Your task to perform on an android device: turn on airplane mode Image 0: 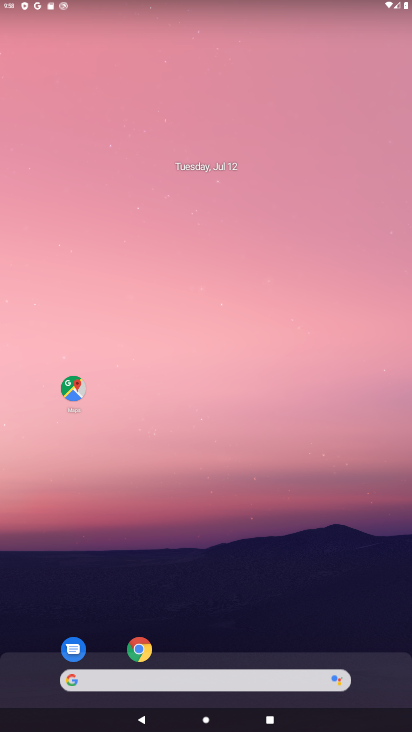
Step 0: drag from (273, 594) to (212, 69)
Your task to perform on an android device: turn on airplane mode Image 1: 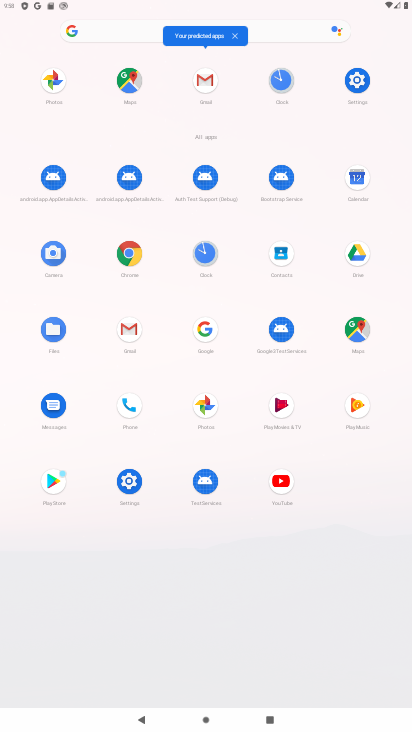
Step 1: click (352, 83)
Your task to perform on an android device: turn on airplane mode Image 2: 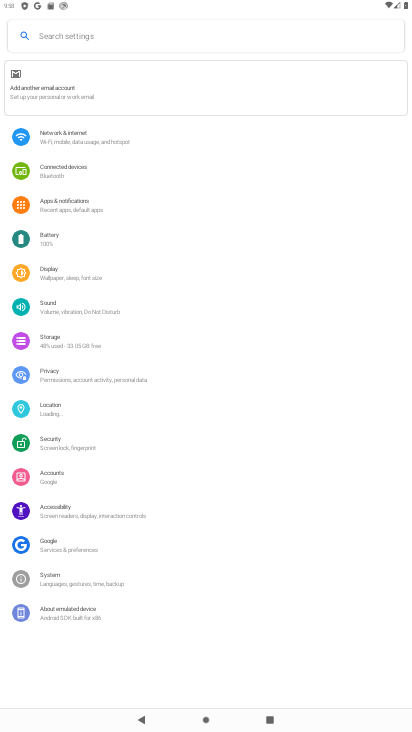
Step 2: click (138, 132)
Your task to perform on an android device: turn on airplane mode Image 3: 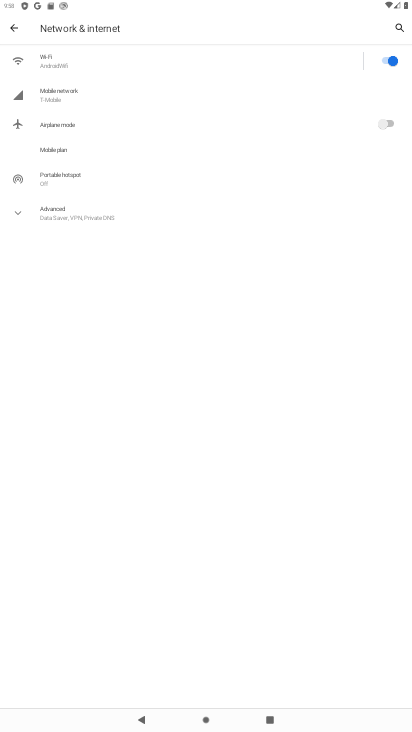
Step 3: click (376, 124)
Your task to perform on an android device: turn on airplane mode Image 4: 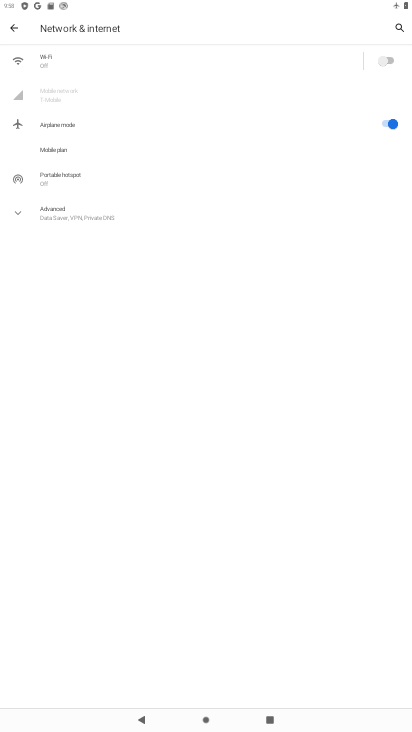
Step 4: task complete